Your task to perform on an android device: turn on notifications settings in the gmail app Image 0: 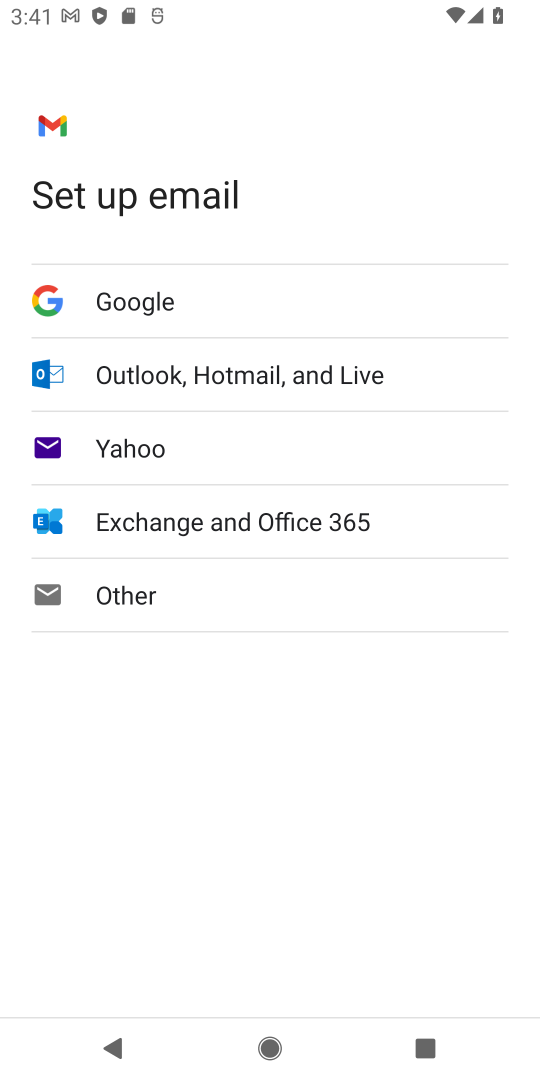
Step 0: press home button
Your task to perform on an android device: turn on notifications settings in the gmail app Image 1: 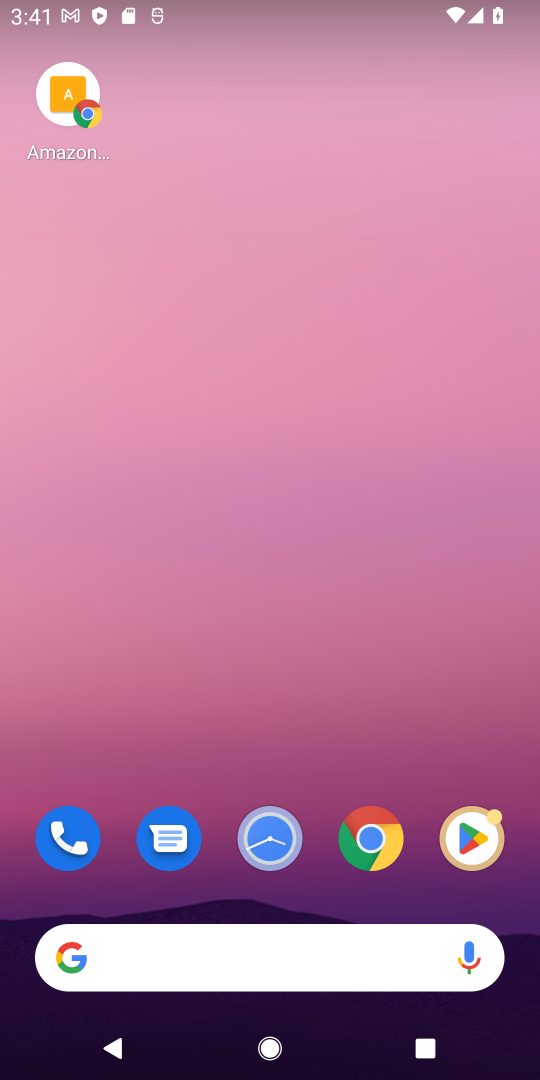
Step 1: drag from (278, 940) to (349, 186)
Your task to perform on an android device: turn on notifications settings in the gmail app Image 2: 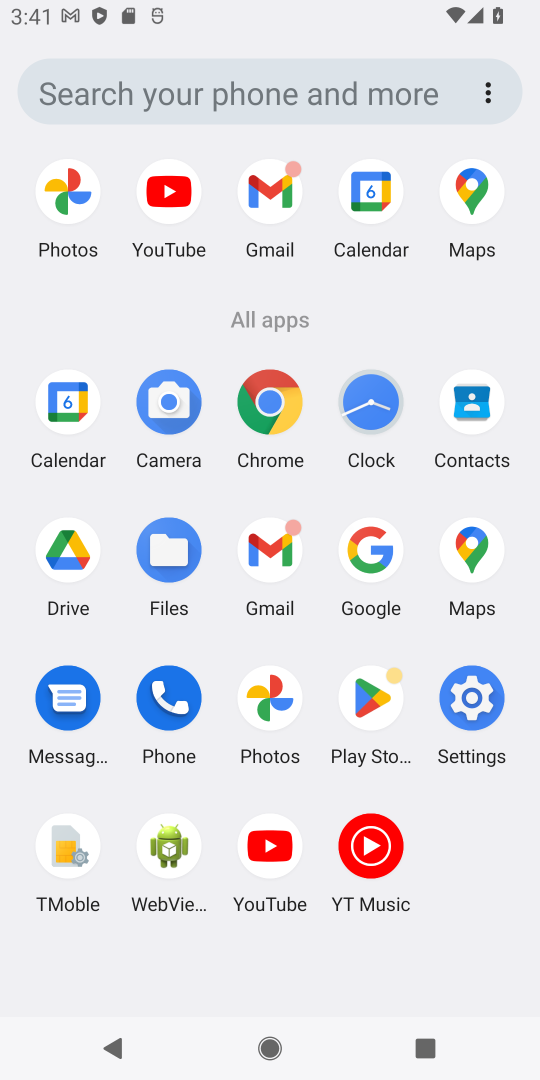
Step 2: click (265, 538)
Your task to perform on an android device: turn on notifications settings in the gmail app Image 3: 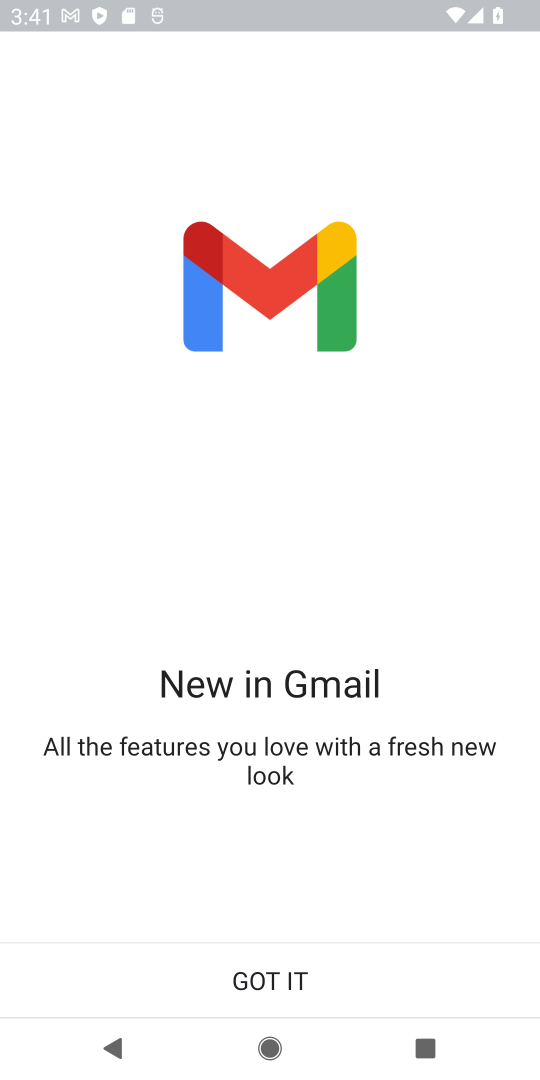
Step 3: click (227, 982)
Your task to perform on an android device: turn on notifications settings in the gmail app Image 4: 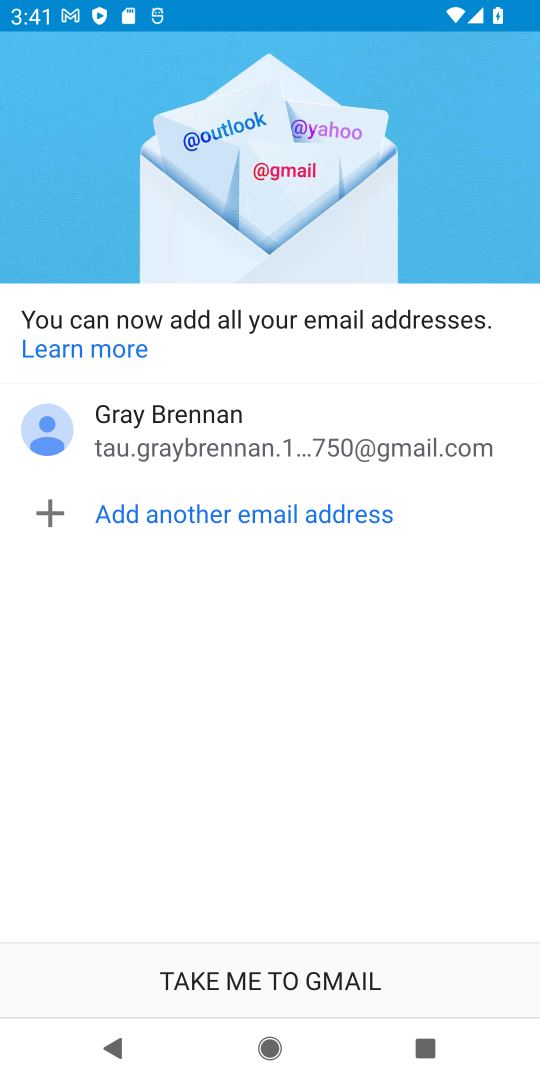
Step 4: click (227, 982)
Your task to perform on an android device: turn on notifications settings in the gmail app Image 5: 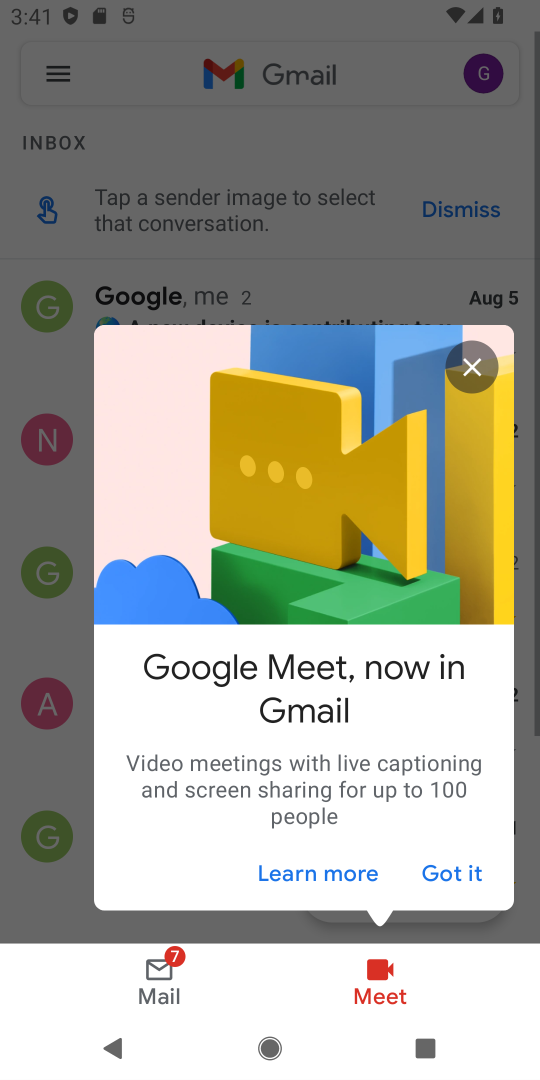
Step 5: click (462, 373)
Your task to perform on an android device: turn on notifications settings in the gmail app Image 6: 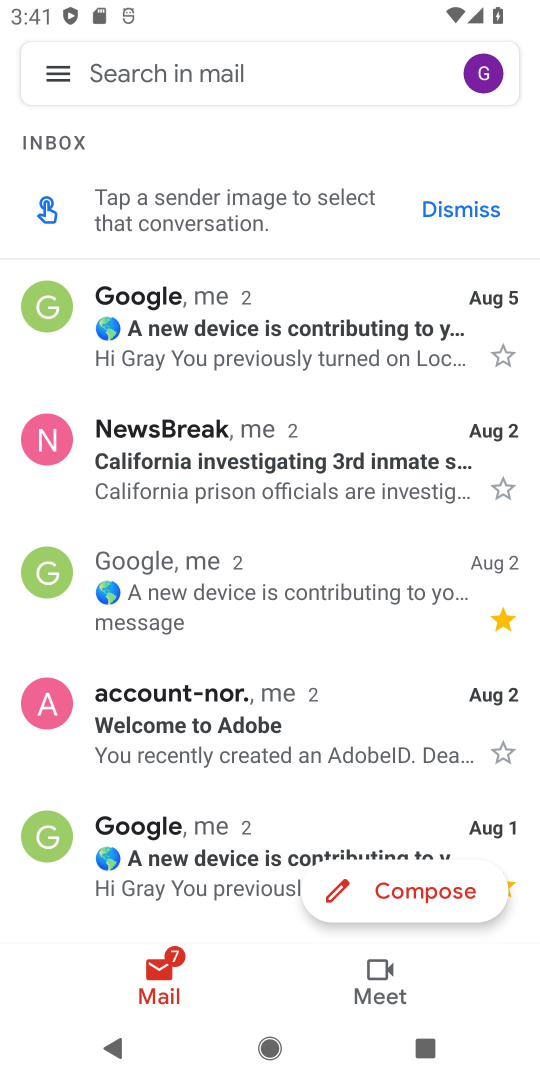
Step 6: click (46, 74)
Your task to perform on an android device: turn on notifications settings in the gmail app Image 7: 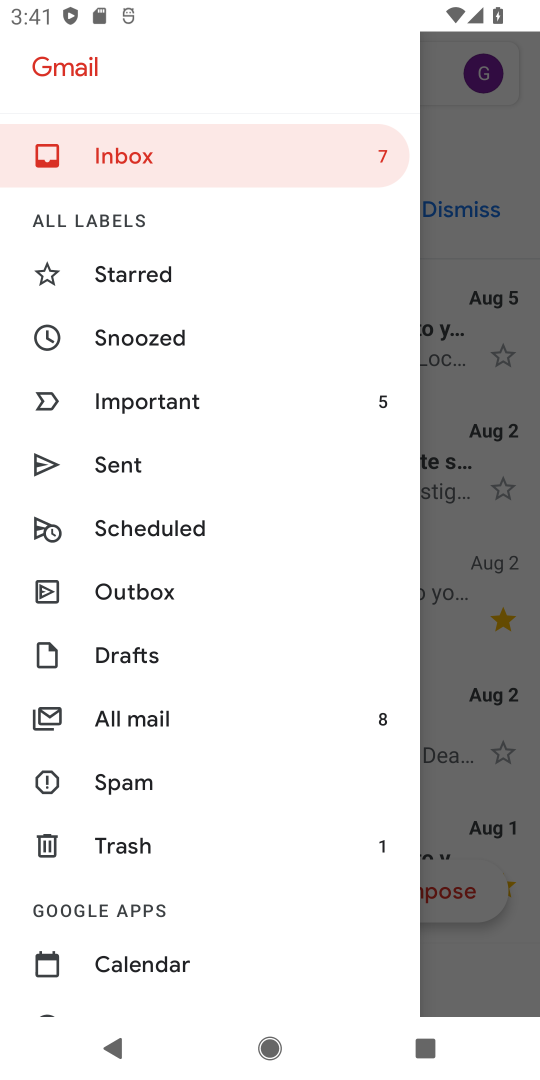
Step 7: drag from (186, 927) to (193, 460)
Your task to perform on an android device: turn on notifications settings in the gmail app Image 8: 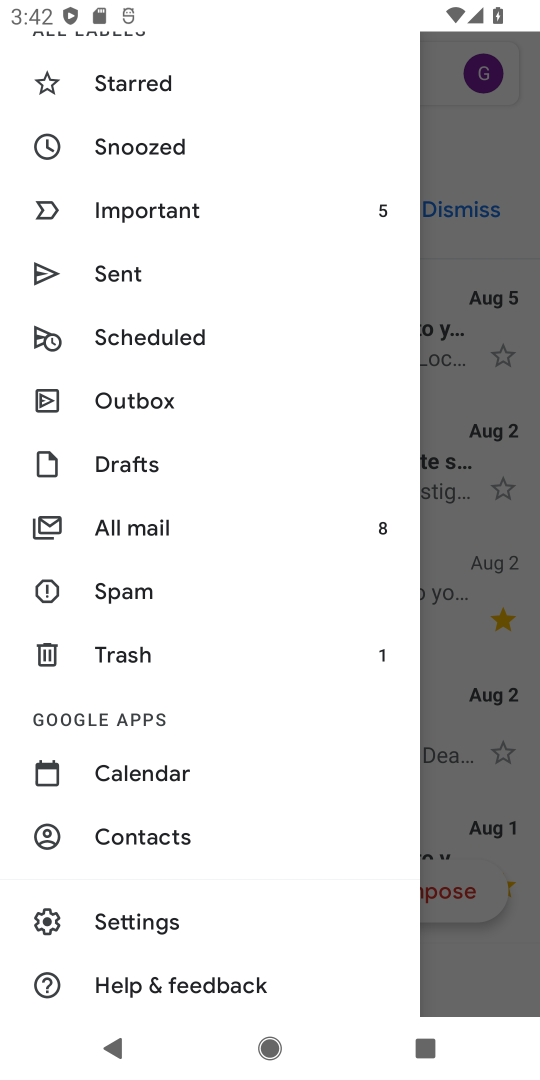
Step 8: click (142, 909)
Your task to perform on an android device: turn on notifications settings in the gmail app Image 9: 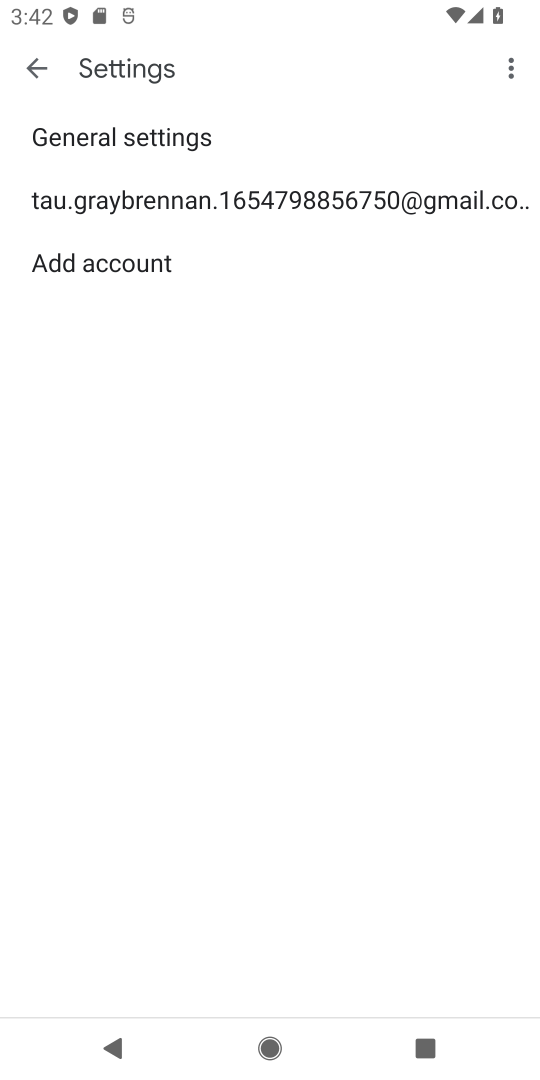
Step 9: click (201, 207)
Your task to perform on an android device: turn on notifications settings in the gmail app Image 10: 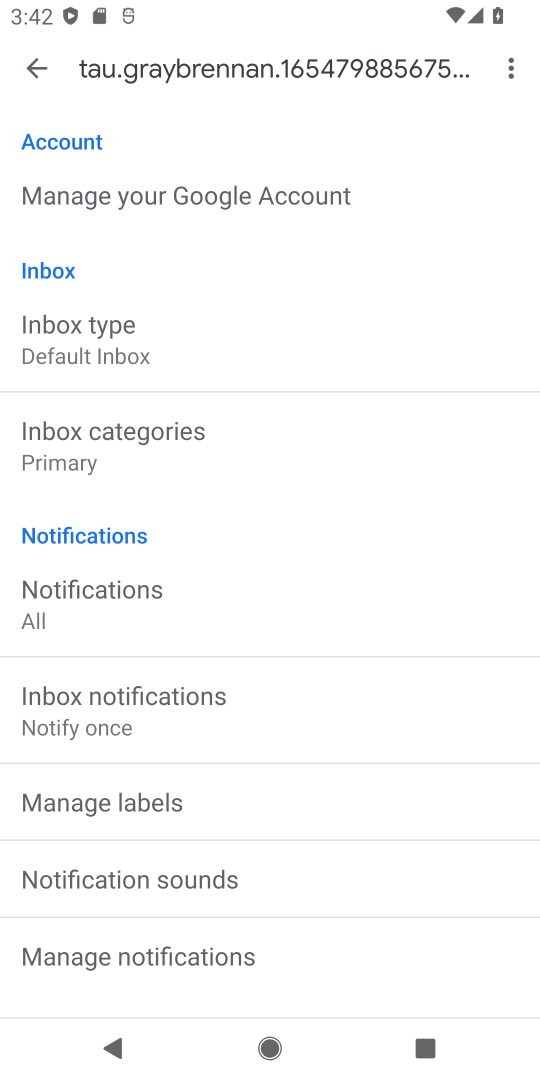
Step 10: click (159, 950)
Your task to perform on an android device: turn on notifications settings in the gmail app Image 11: 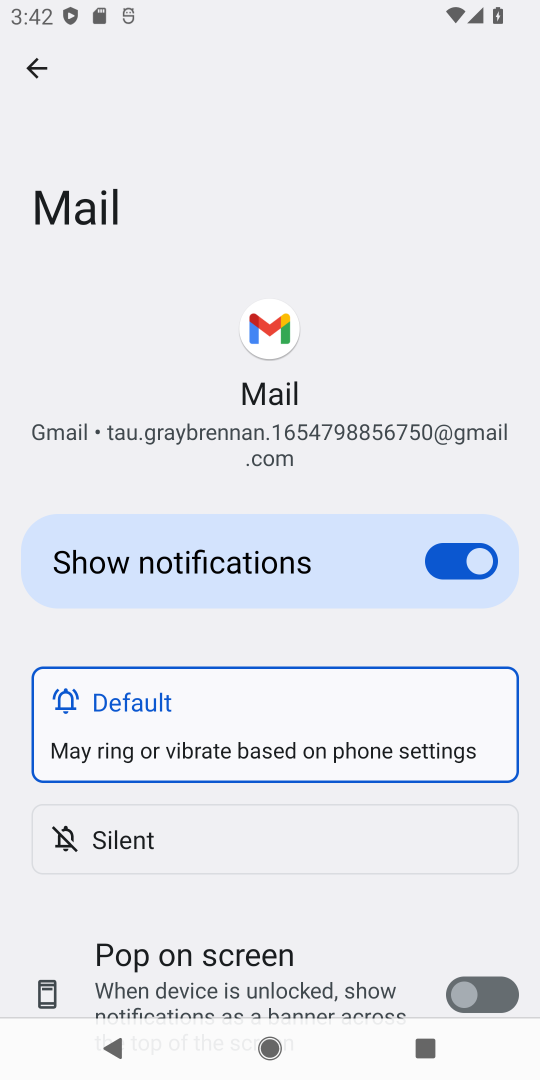
Step 11: task complete